Your task to perform on an android device: toggle wifi Image 0: 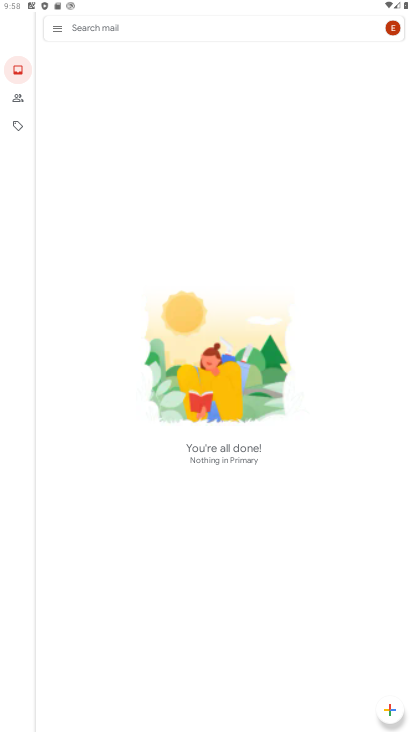
Step 0: press home button
Your task to perform on an android device: toggle wifi Image 1: 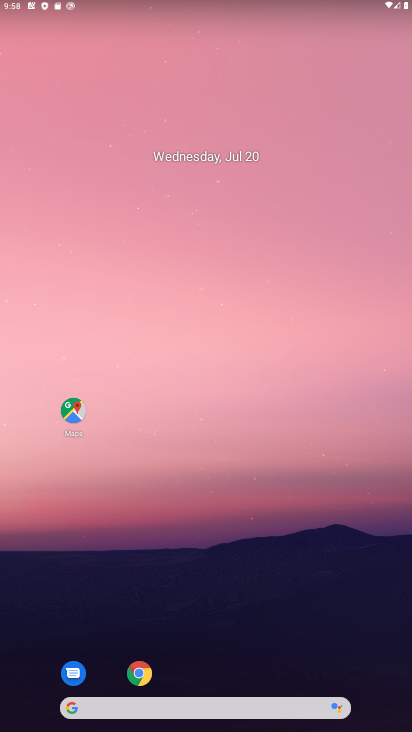
Step 1: drag from (202, 712) to (191, 208)
Your task to perform on an android device: toggle wifi Image 2: 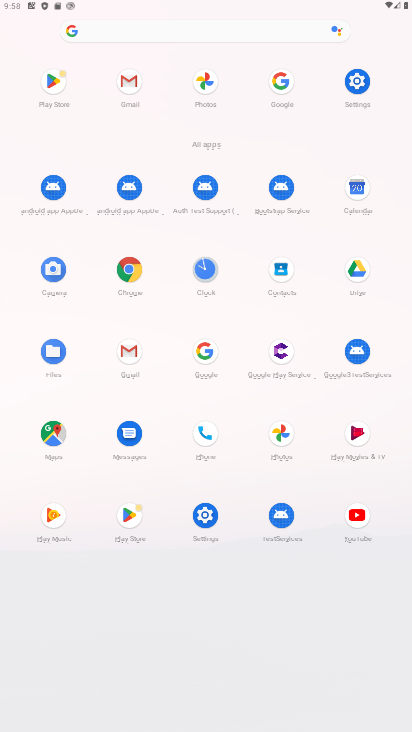
Step 2: click (357, 80)
Your task to perform on an android device: toggle wifi Image 3: 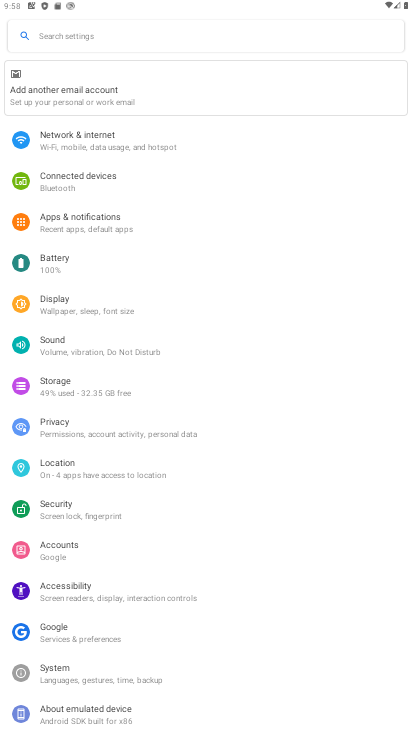
Step 3: click (102, 145)
Your task to perform on an android device: toggle wifi Image 4: 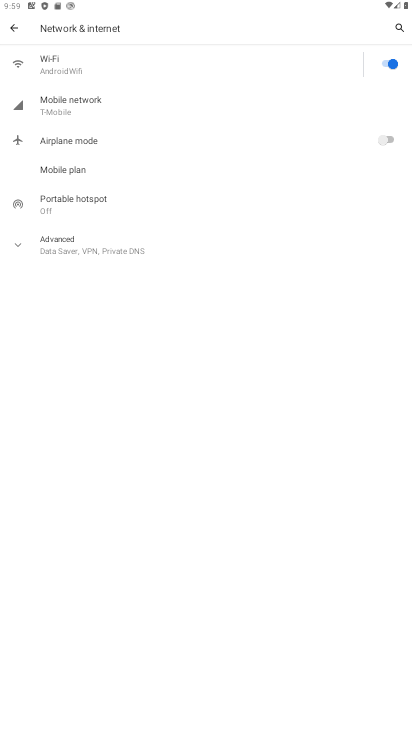
Step 4: click (389, 65)
Your task to perform on an android device: toggle wifi Image 5: 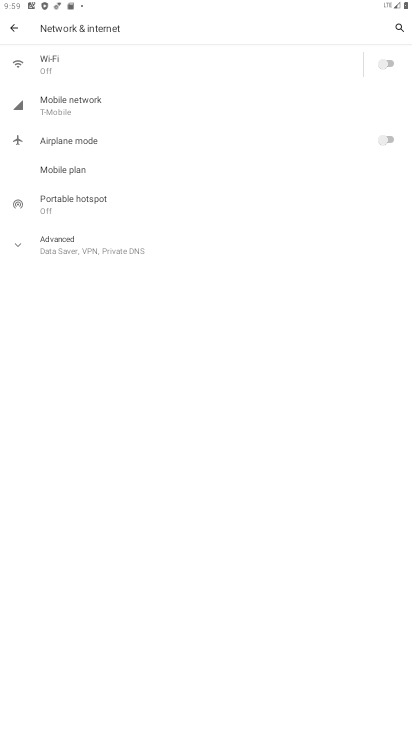
Step 5: task complete